Your task to perform on an android device: turn off notifications in google photos Image 0: 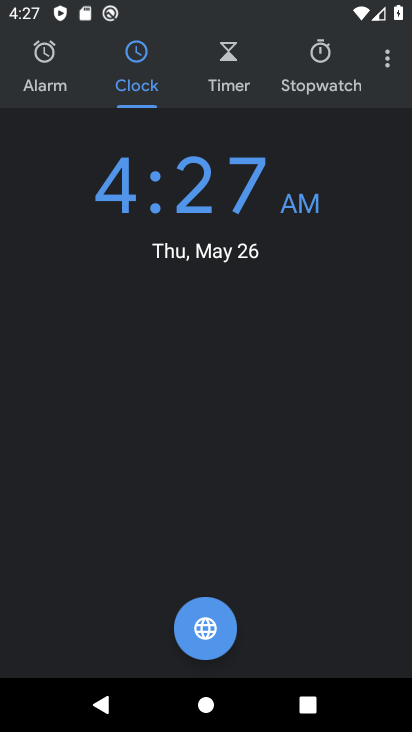
Step 0: press home button
Your task to perform on an android device: turn off notifications in google photos Image 1: 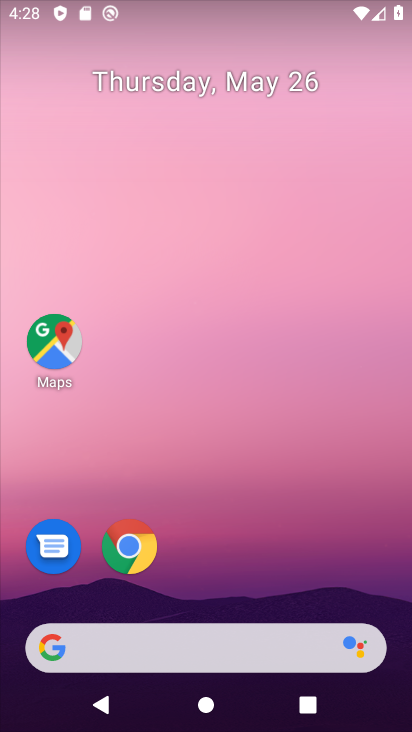
Step 1: drag from (334, 588) to (242, 188)
Your task to perform on an android device: turn off notifications in google photos Image 2: 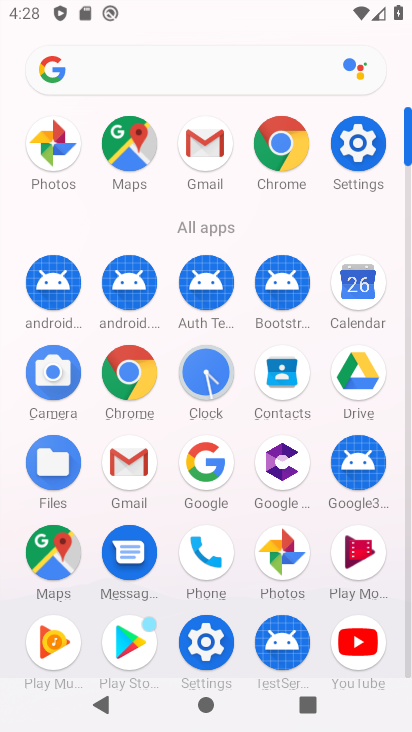
Step 2: click (52, 141)
Your task to perform on an android device: turn off notifications in google photos Image 3: 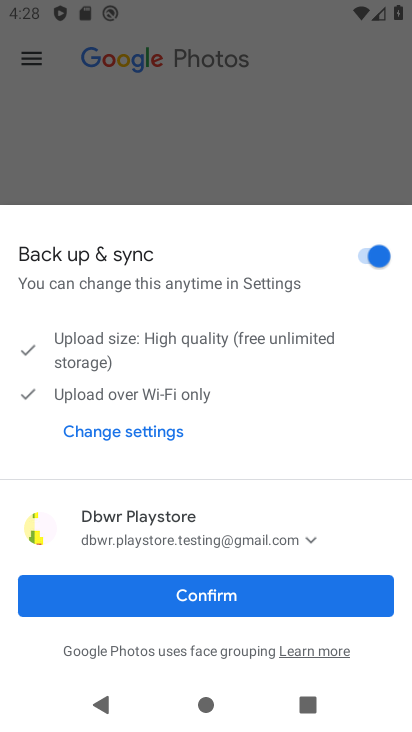
Step 3: click (184, 592)
Your task to perform on an android device: turn off notifications in google photos Image 4: 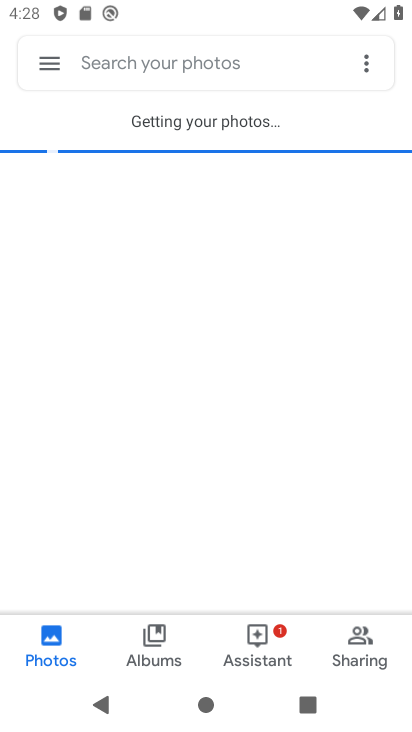
Step 4: click (52, 61)
Your task to perform on an android device: turn off notifications in google photos Image 5: 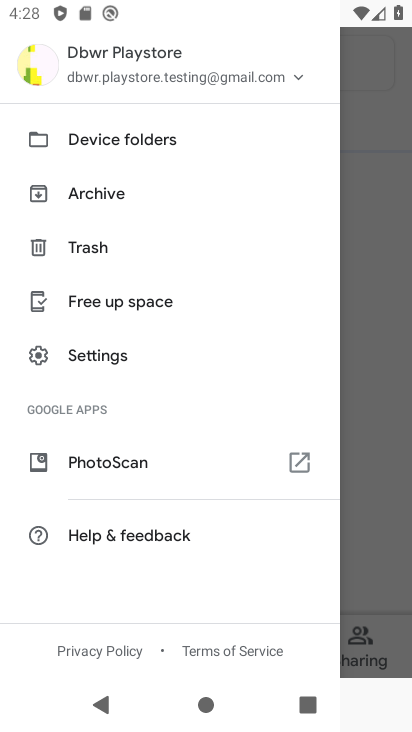
Step 5: click (118, 360)
Your task to perform on an android device: turn off notifications in google photos Image 6: 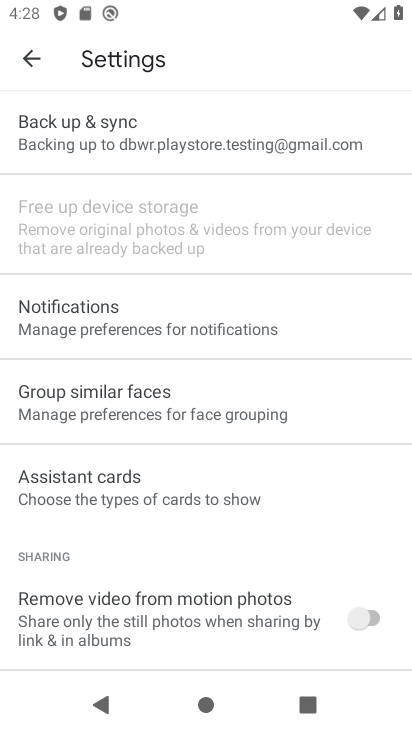
Step 6: click (201, 328)
Your task to perform on an android device: turn off notifications in google photos Image 7: 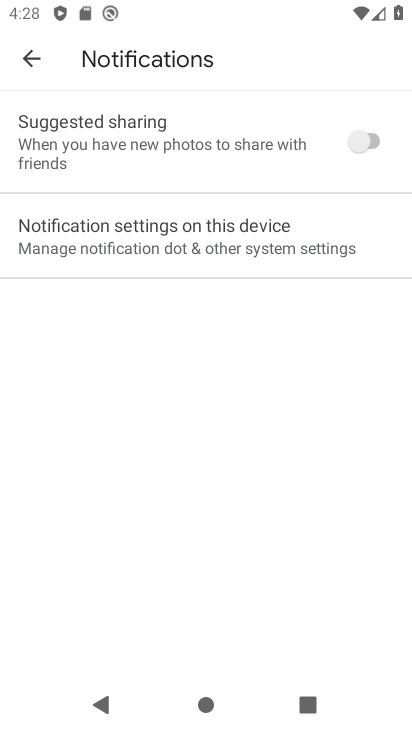
Step 7: click (184, 257)
Your task to perform on an android device: turn off notifications in google photos Image 8: 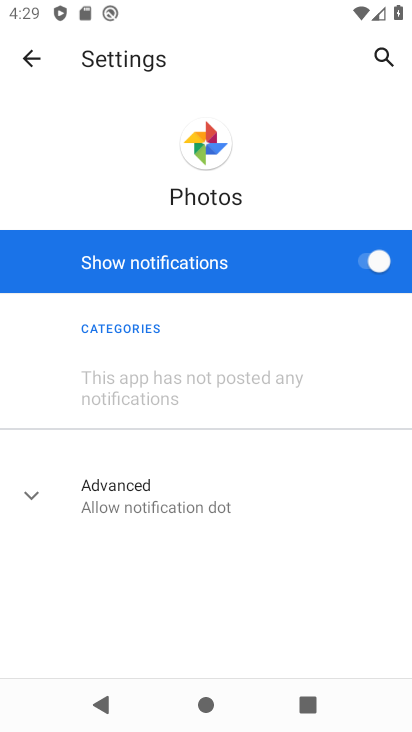
Step 8: click (368, 261)
Your task to perform on an android device: turn off notifications in google photos Image 9: 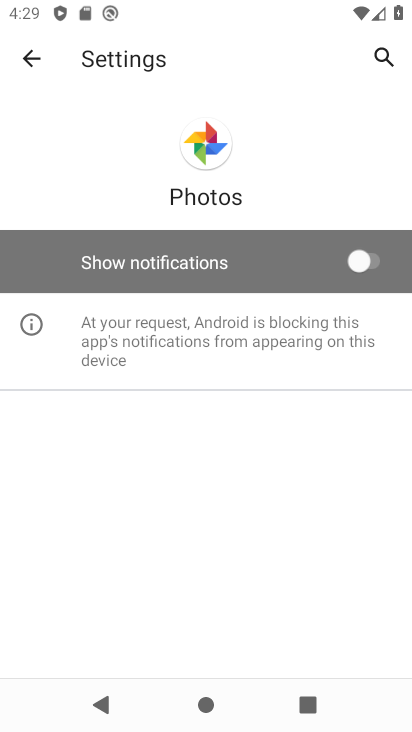
Step 9: task complete